Your task to perform on an android device: Show me the alarms in the clock app Image 0: 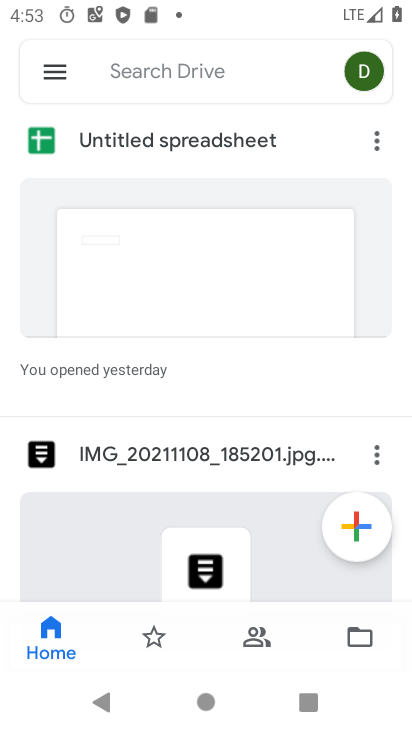
Step 0: press home button
Your task to perform on an android device: Show me the alarms in the clock app Image 1: 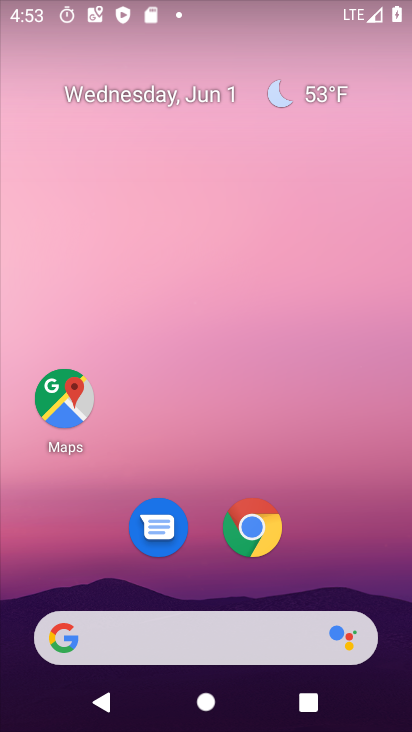
Step 1: drag from (346, 543) to (350, 84)
Your task to perform on an android device: Show me the alarms in the clock app Image 2: 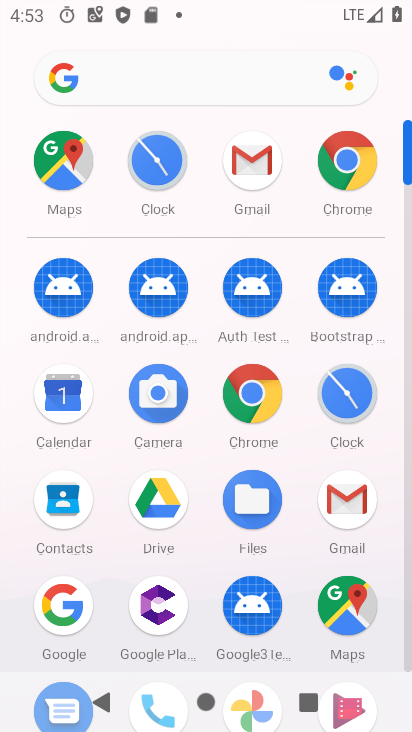
Step 2: click (345, 380)
Your task to perform on an android device: Show me the alarms in the clock app Image 3: 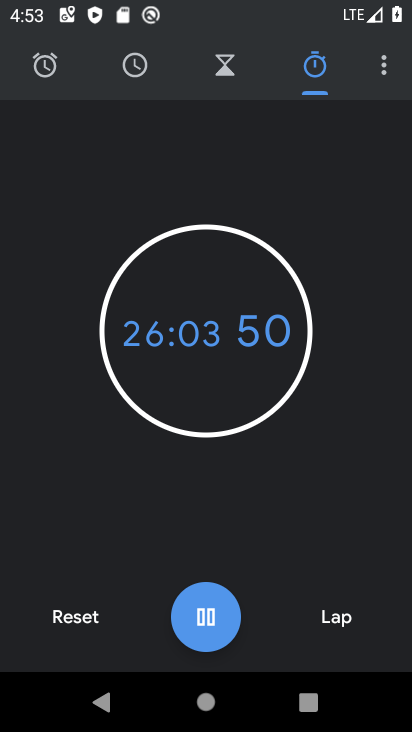
Step 3: click (45, 67)
Your task to perform on an android device: Show me the alarms in the clock app Image 4: 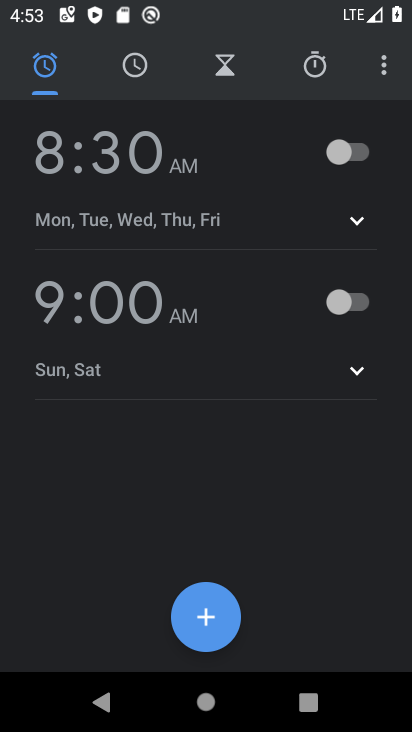
Step 4: task complete